Your task to perform on an android device: turn on showing notifications on the lock screen Image 0: 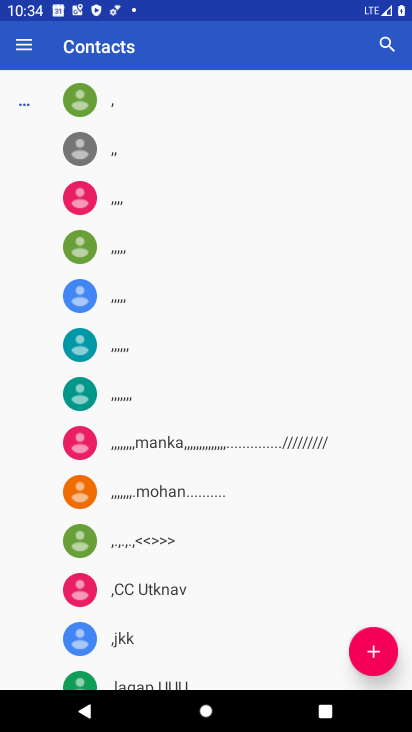
Step 0: press home button
Your task to perform on an android device: turn on showing notifications on the lock screen Image 1: 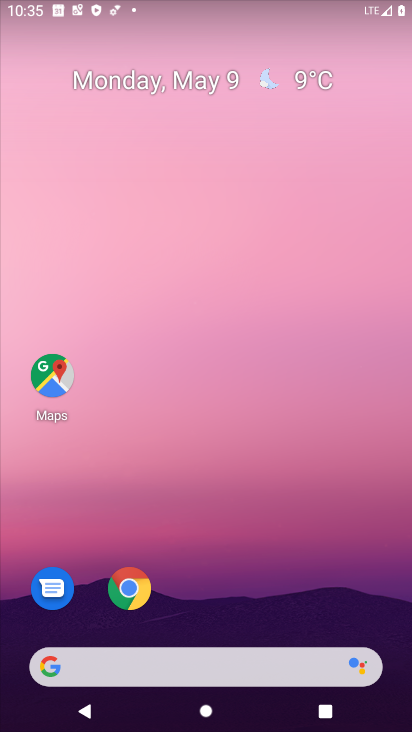
Step 1: drag from (149, 669) to (357, 144)
Your task to perform on an android device: turn on showing notifications on the lock screen Image 2: 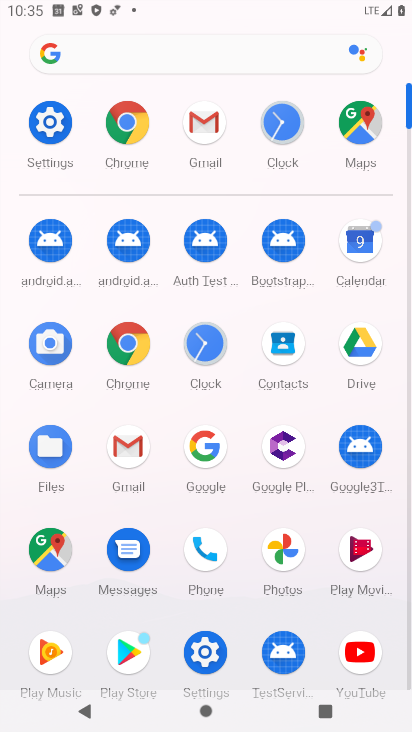
Step 2: click (59, 123)
Your task to perform on an android device: turn on showing notifications on the lock screen Image 3: 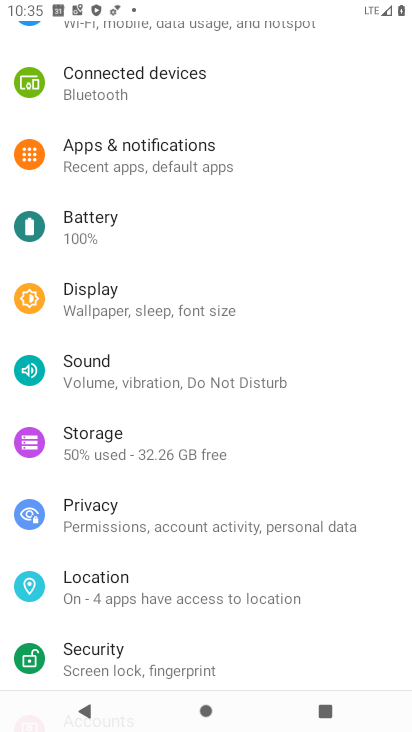
Step 3: click (167, 143)
Your task to perform on an android device: turn on showing notifications on the lock screen Image 4: 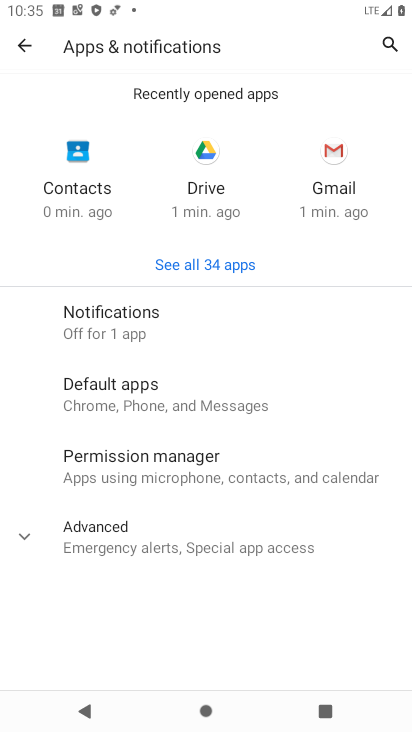
Step 4: click (150, 321)
Your task to perform on an android device: turn on showing notifications on the lock screen Image 5: 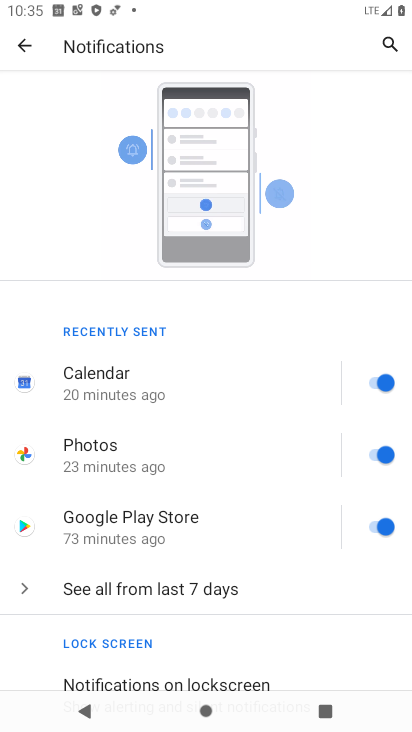
Step 5: drag from (204, 536) to (321, 306)
Your task to perform on an android device: turn on showing notifications on the lock screen Image 6: 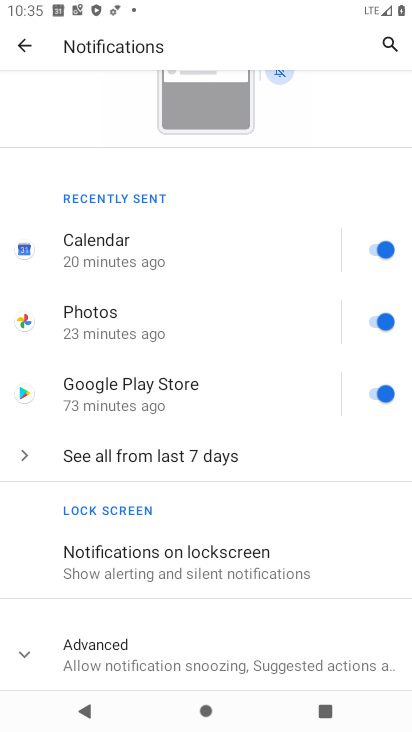
Step 6: click (188, 555)
Your task to perform on an android device: turn on showing notifications on the lock screen Image 7: 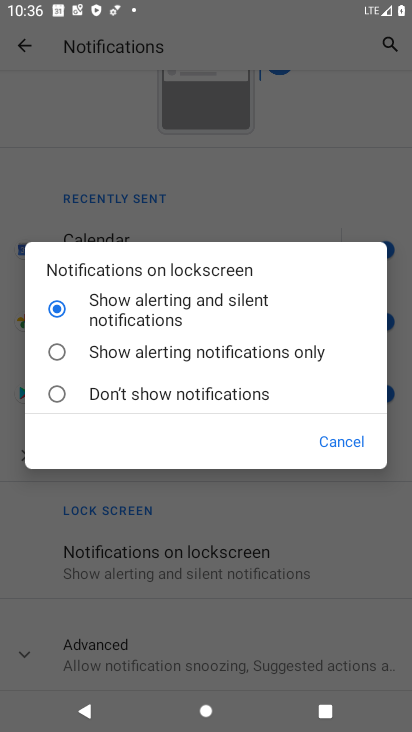
Step 7: task complete